Your task to perform on an android device: Open the map Image 0: 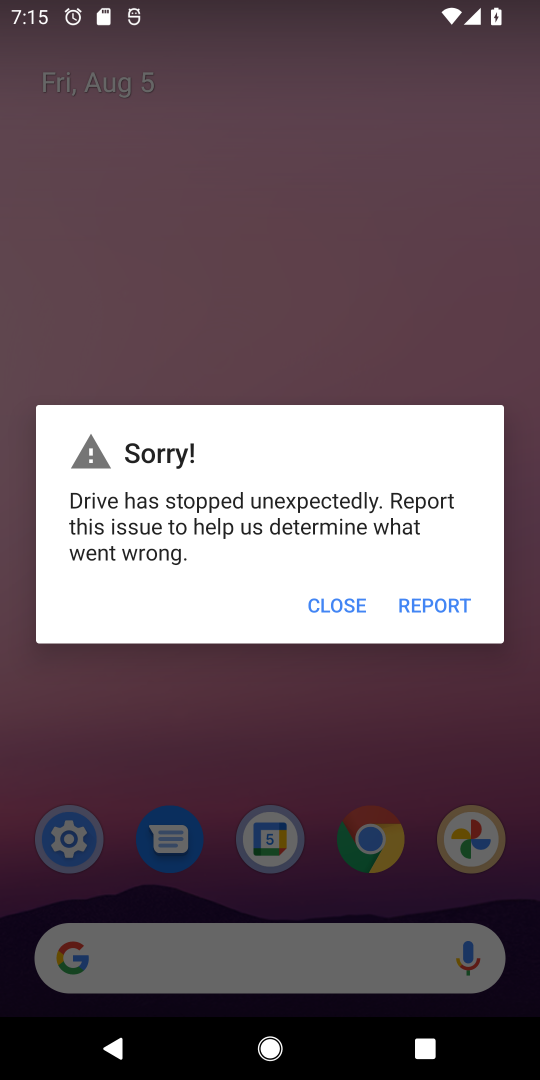
Step 0: click (336, 599)
Your task to perform on an android device: Open the map Image 1: 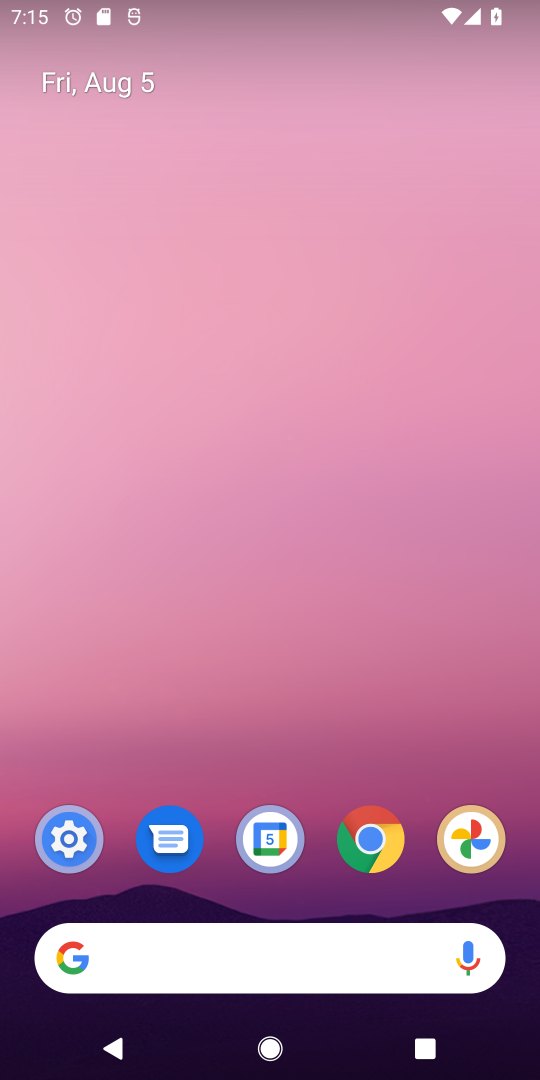
Step 1: drag from (280, 728) to (250, 285)
Your task to perform on an android device: Open the map Image 2: 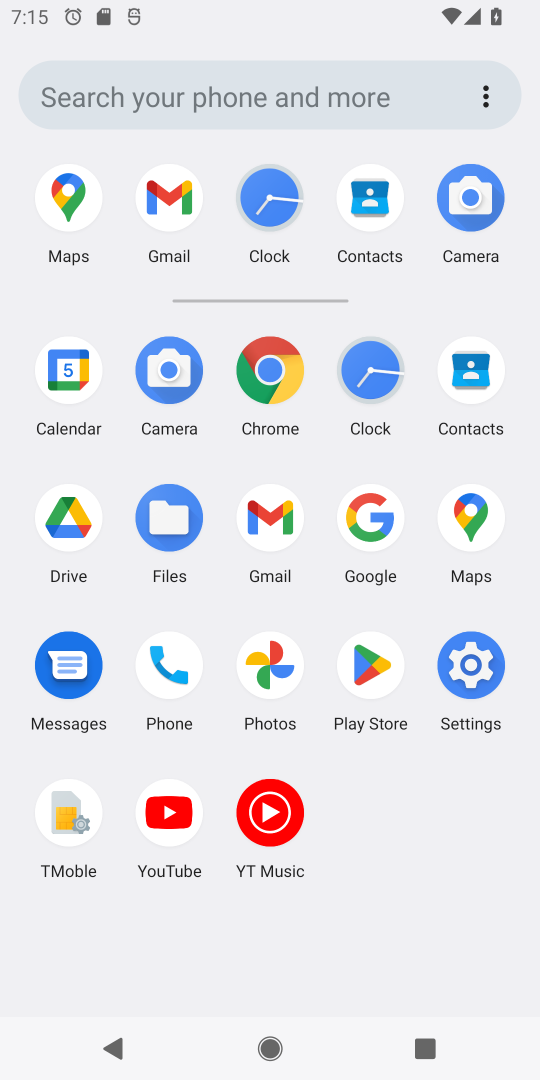
Step 2: click (53, 210)
Your task to perform on an android device: Open the map Image 3: 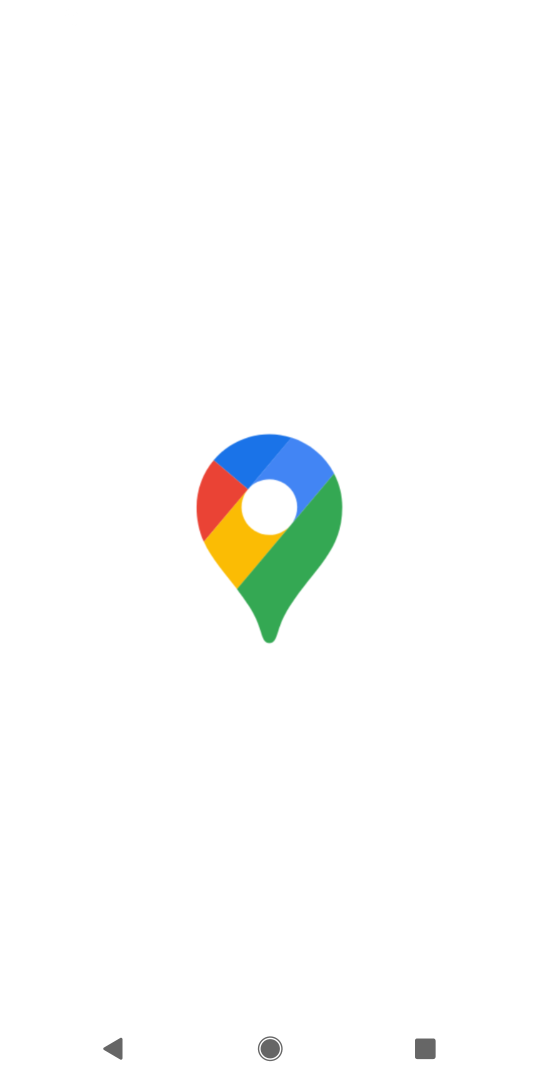
Step 3: task complete